Your task to perform on an android device: turn notification dots on Image 0: 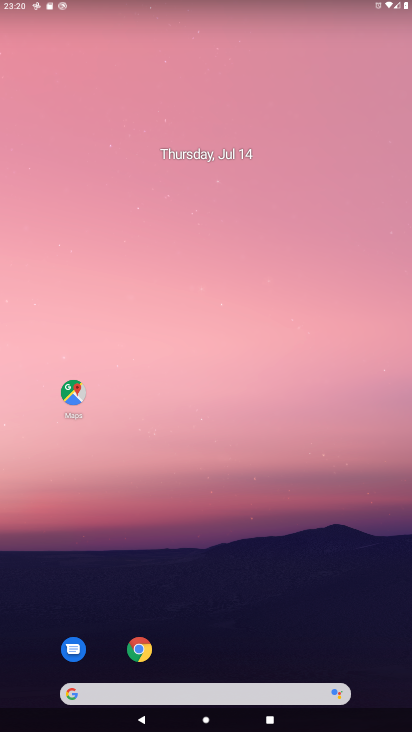
Step 0: drag from (232, 723) to (199, 14)
Your task to perform on an android device: turn notification dots on Image 1: 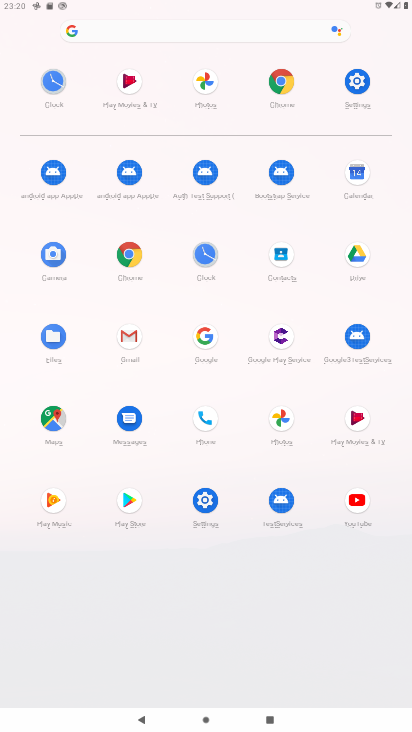
Step 1: click (362, 83)
Your task to perform on an android device: turn notification dots on Image 2: 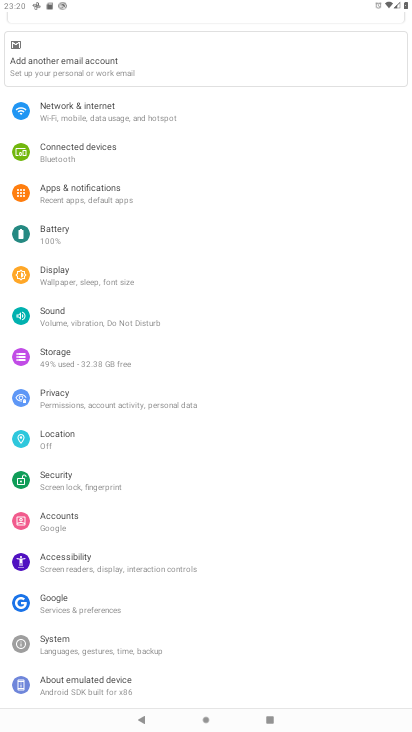
Step 2: click (99, 198)
Your task to perform on an android device: turn notification dots on Image 3: 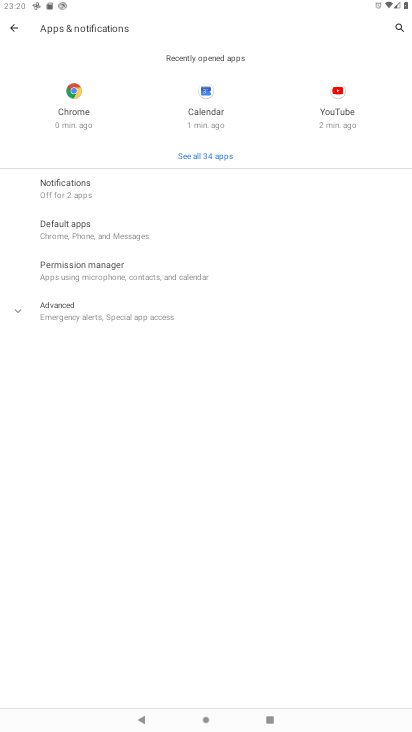
Step 3: click (93, 199)
Your task to perform on an android device: turn notification dots on Image 4: 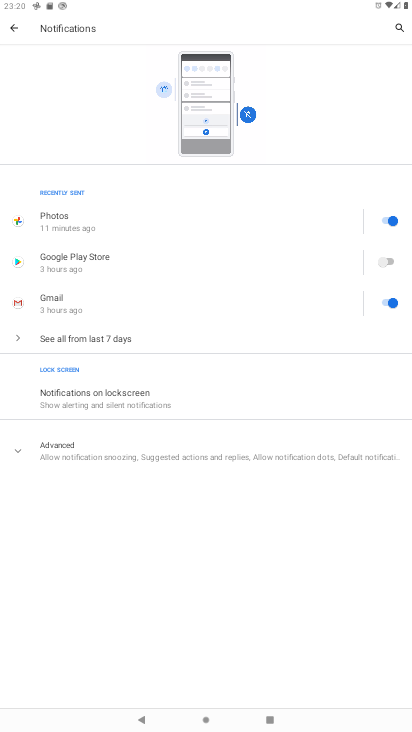
Step 4: click (154, 451)
Your task to perform on an android device: turn notification dots on Image 5: 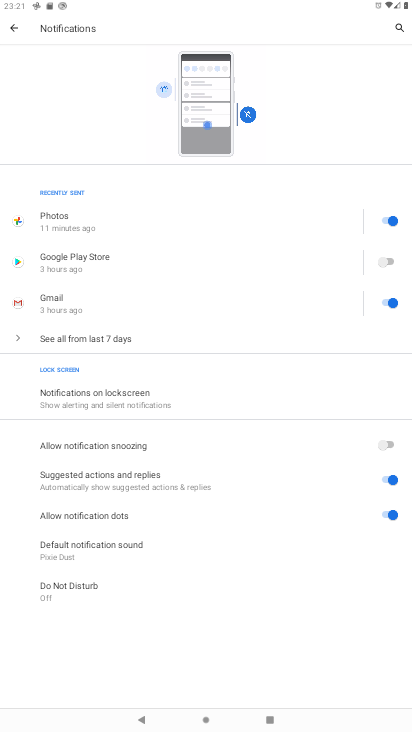
Step 5: task complete